Your task to perform on an android device: Go to Wikipedia Image 0: 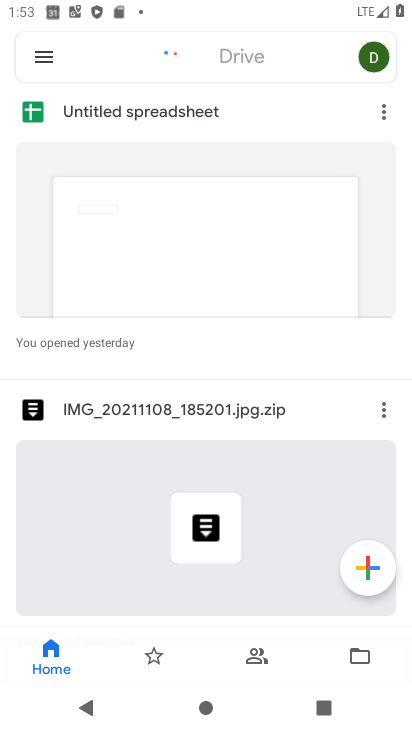
Step 0: press home button
Your task to perform on an android device: Go to Wikipedia Image 1: 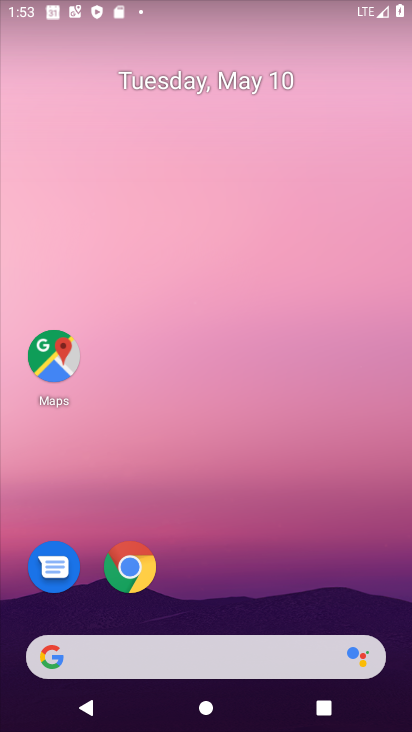
Step 1: drag from (399, 609) to (257, 57)
Your task to perform on an android device: Go to Wikipedia Image 2: 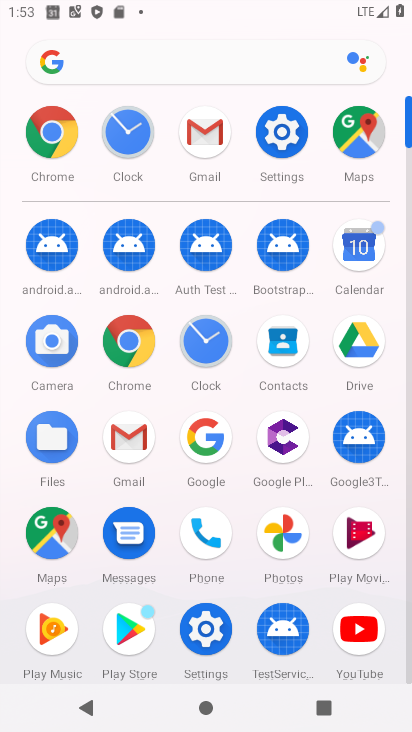
Step 2: click (122, 333)
Your task to perform on an android device: Go to Wikipedia Image 3: 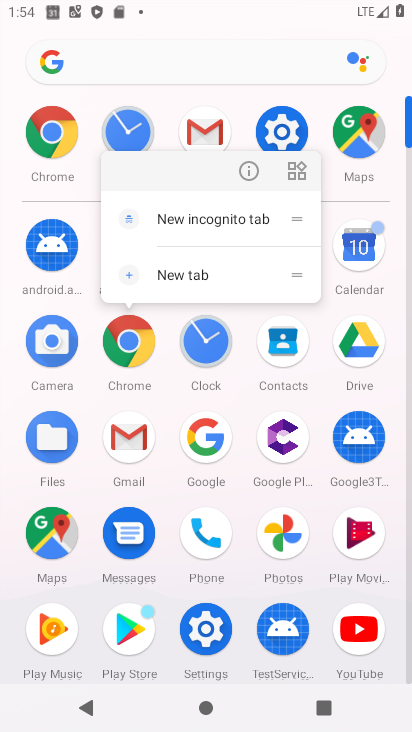
Step 3: click (134, 343)
Your task to perform on an android device: Go to Wikipedia Image 4: 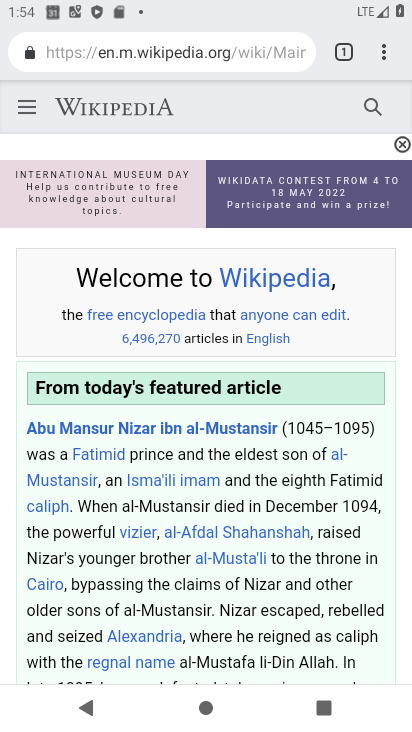
Step 4: task complete